Your task to perform on an android device: Open maps Image 0: 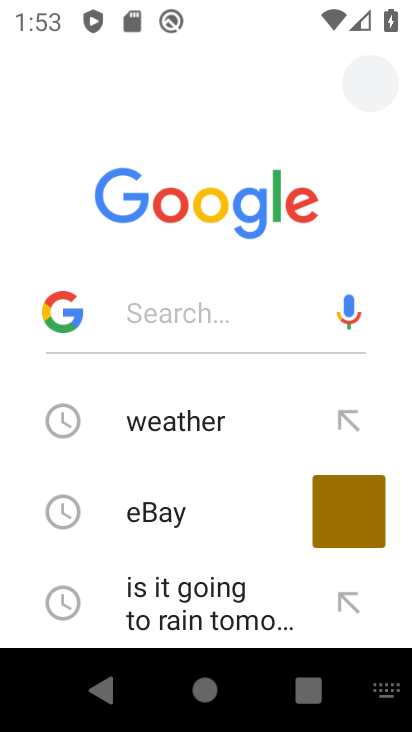
Step 0: press home button
Your task to perform on an android device: Open maps Image 1: 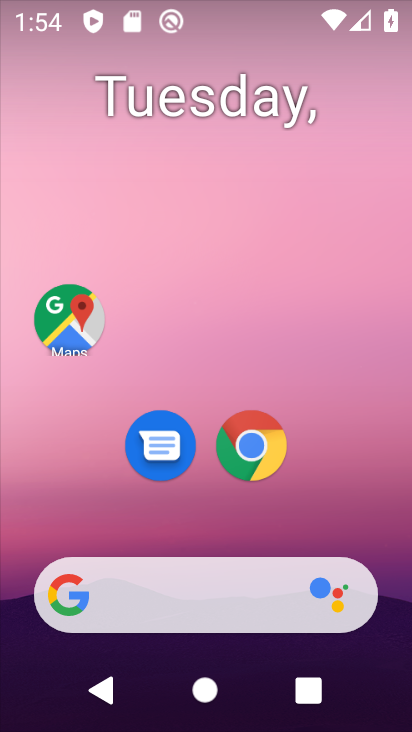
Step 1: click (66, 316)
Your task to perform on an android device: Open maps Image 2: 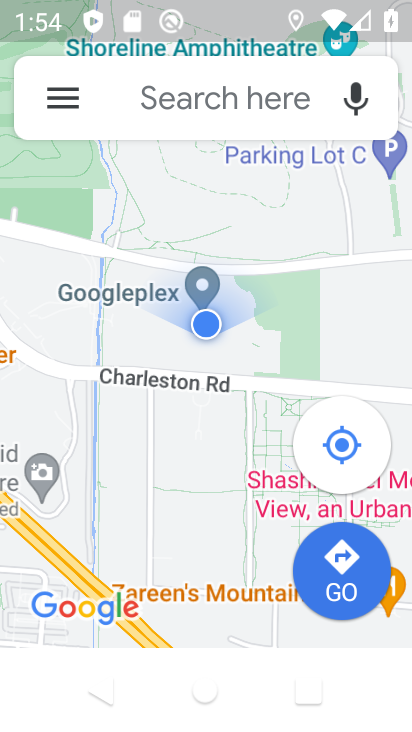
Step 2: task complete